Your task to perform on an android device: Open Maps and search for coffee Image 0: 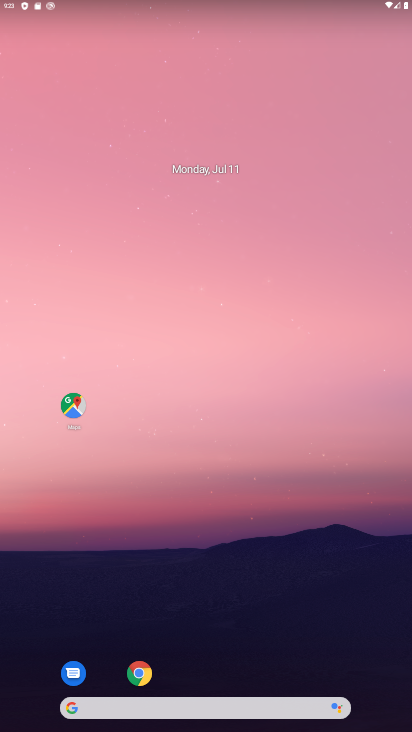
Step 0: click (75, 398)
Your task to perform on an android device: Open Maps and search for coffee Image 1: 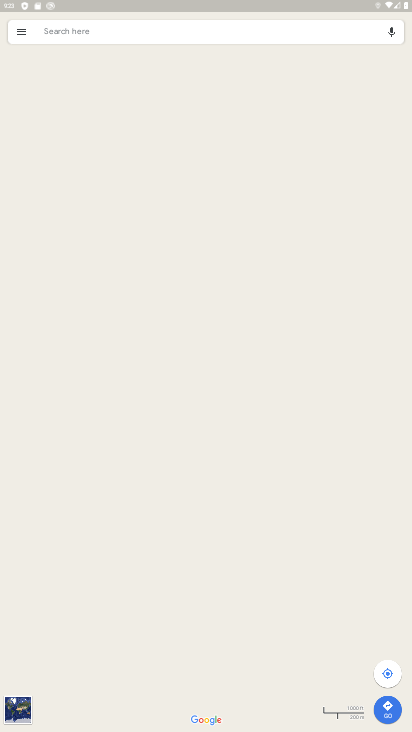
Step 1: click (144, 28)
Your task to perform on an android device: Open Maps and search for coffee Image 2: 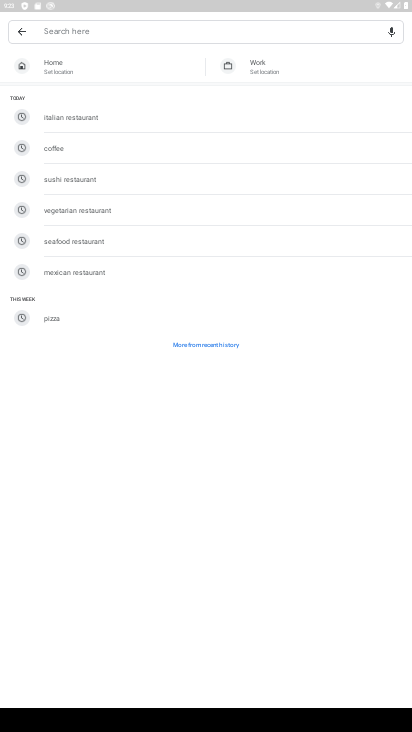
Step 2: click (85, 150)
Your task to perform on an android device: Open Maps and search for coffee Image 3: 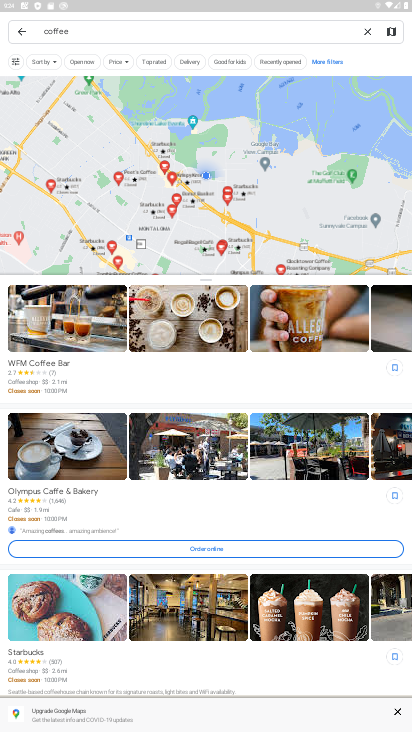
Step 3: task complete